Your task to perform on an android device: turn on wifi Image 0: 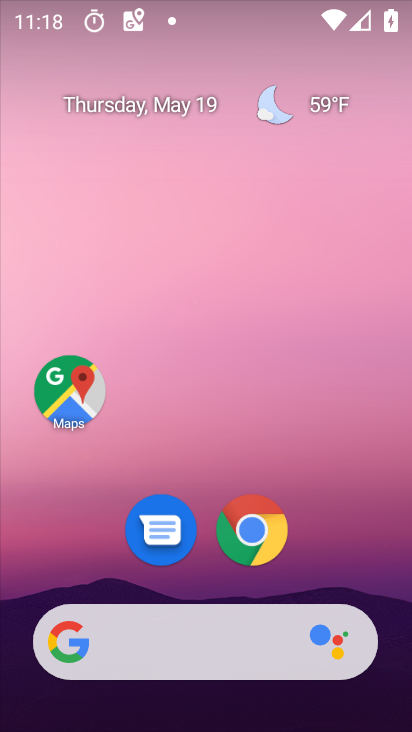
Step 0: drag from (376, 567) to (321, 49)
Your task to perform on an android device: turn on wifi Image 1: 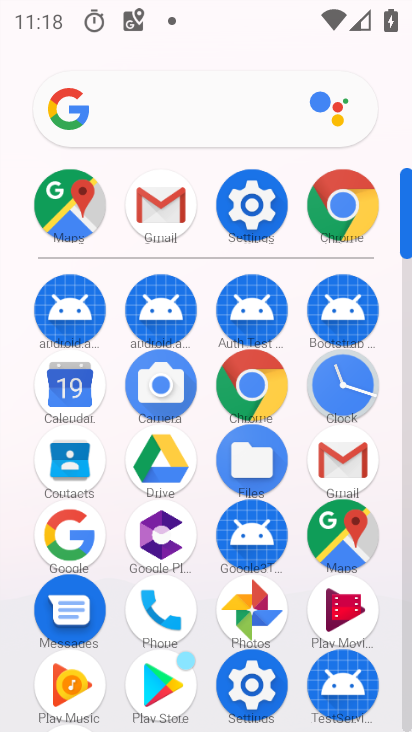
Step 1: click (268, 205)
Your task to perform on an android device: turn on wifi Image 2: 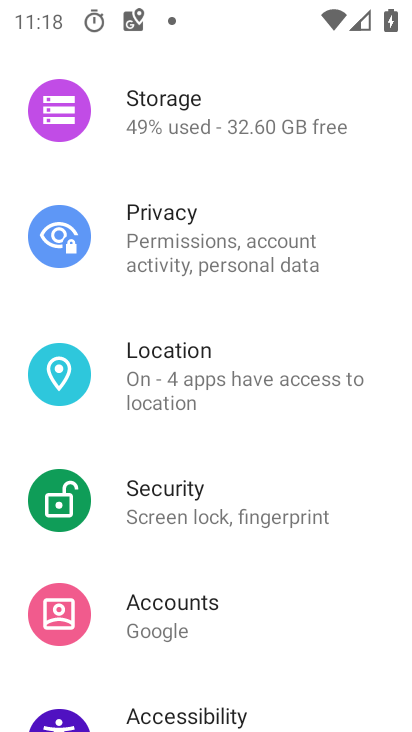
Step 2: drag from (295, 205) to (295, 584)
Your task to perform on an android device: turn on wifi Image 3: 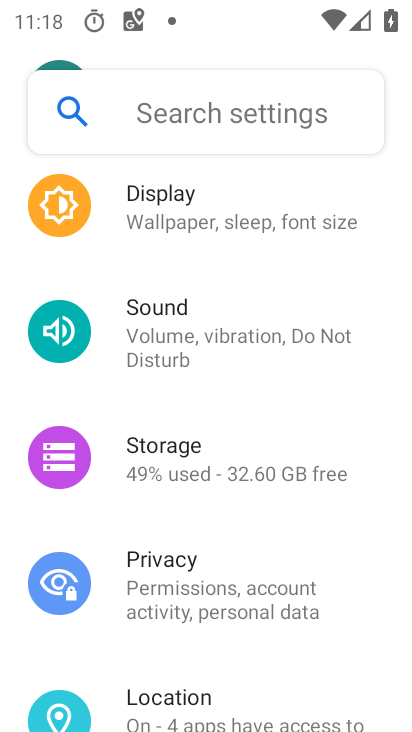
Step 3: drag from (248, 226) to (283, 664)
Your task to perform on an android device: turn on wifi Image 4: 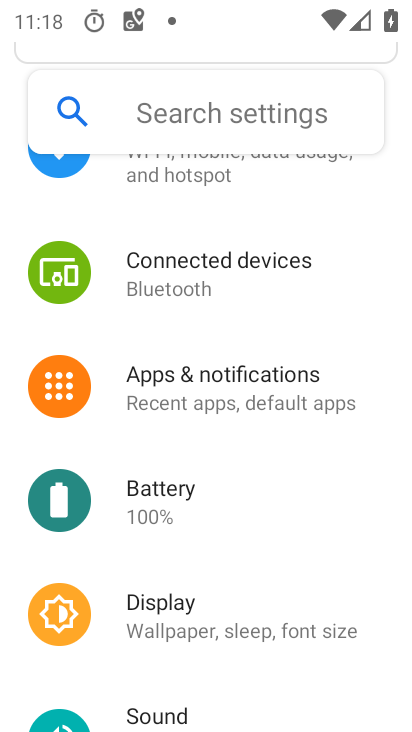
Step 4: drag from (252, 163) to (269, 625)
Your task to perform on an android device: turn on wifi Image 5: 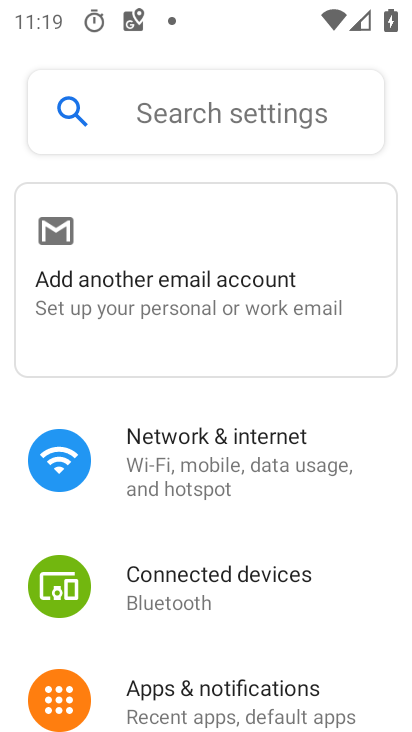
Step 5: click (277, 442)
Your task to perform on an android device: turn on wifi Image 6: 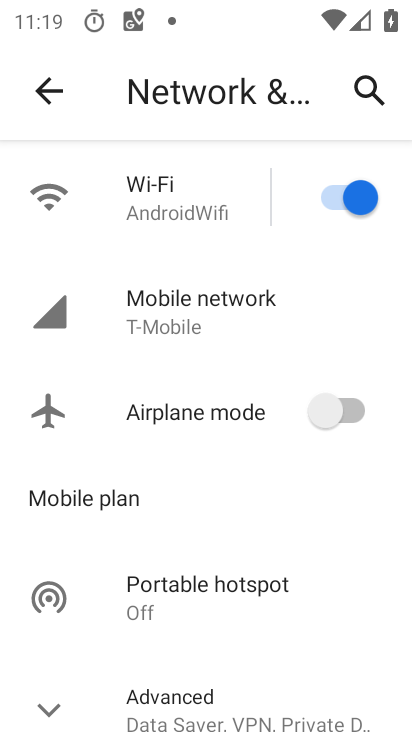
Step 6: task complete